Your task to perform on an android device: toggle sleep mode Image 0: 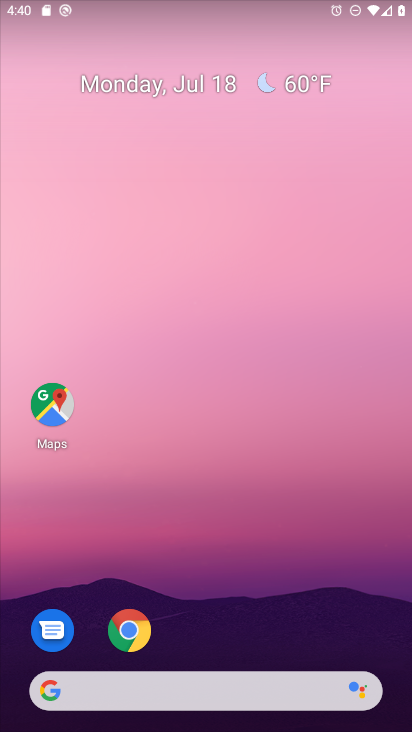
Step 0: drag from (258, 566) to (231, 189)
Your task to perform on an android device: toggle sleep mode Image 1: 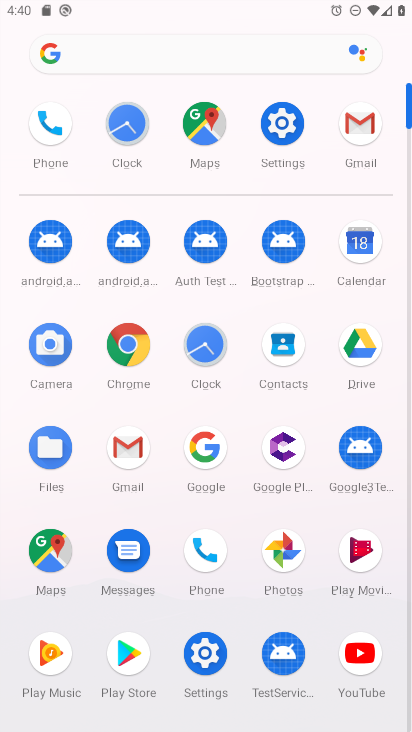
Step 1: click (282, 116)
Your task to perform on an android device: toggle sleep mode Image 2: 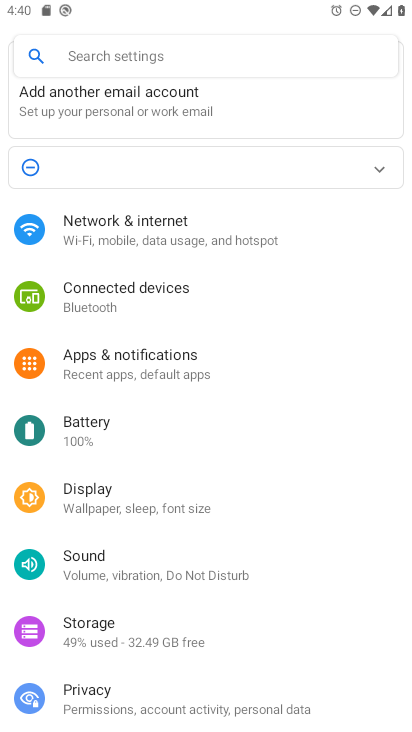
Step 2: click (99, 491)
Your task to perform on an android device: toggle sleep mode Image 3: 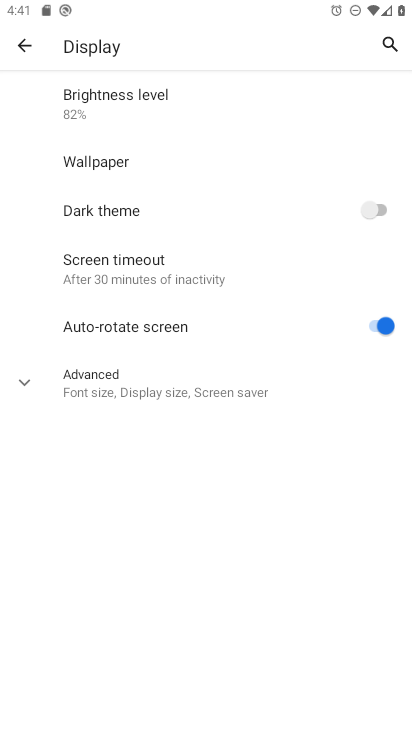
Step 3: task complete